Your task to perform on an android device: turn off airplane mode Image 0: 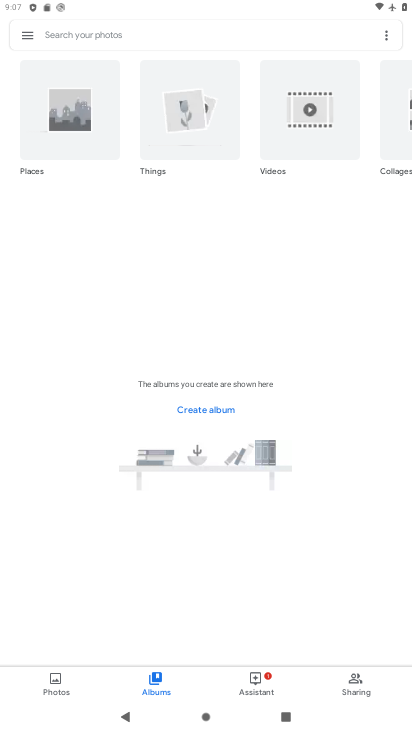
Step 0: press home button
Your task to perform on an android device: turn off airplane mode Image 1: 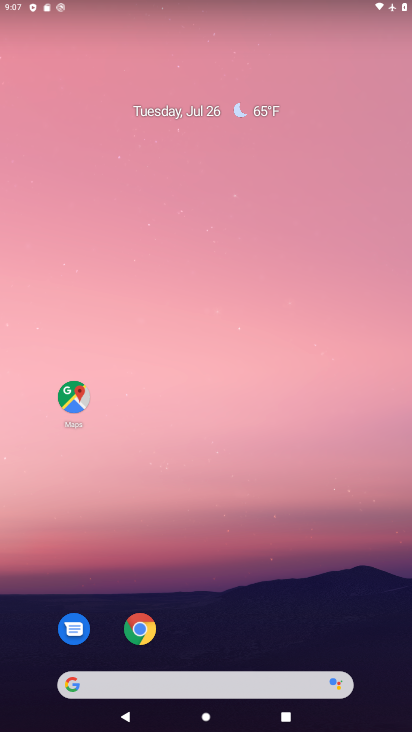
Step 1: drag from (302, 623) to (263, 41)
Your task to perform on an android device: turn off airplane mode Image 2: 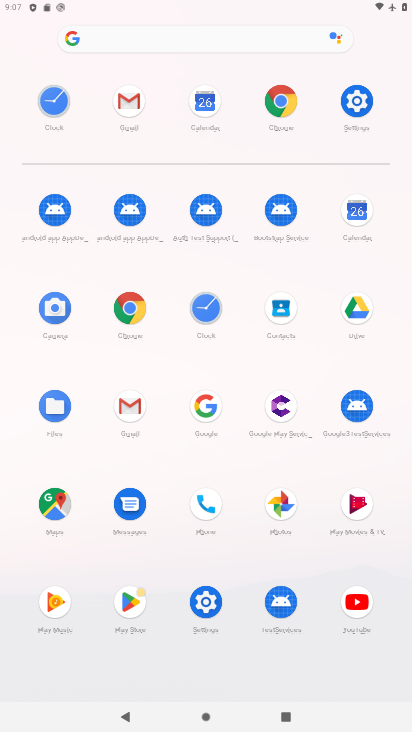
Step 2: click (367, 105)
Your task to perform on an android device: turn off airplane mode Image 3: 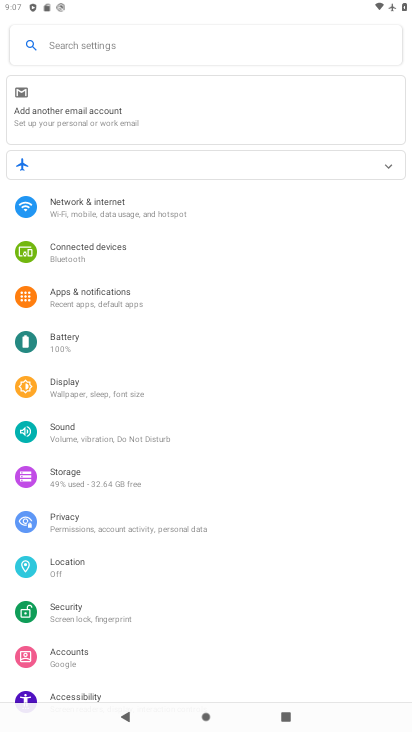
Step 3: click (93, 221)
Your task to perform on an android device: turn off airplane mode Image 4: 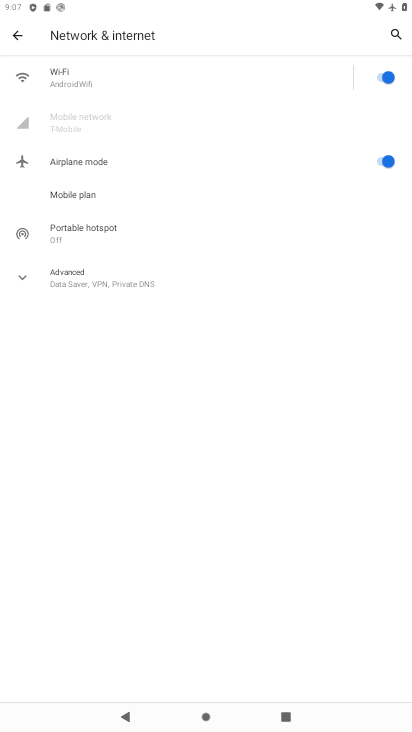
Step 4: click (333, 164)
Your task to perform on an android device: turn off airplane mode Image 5: 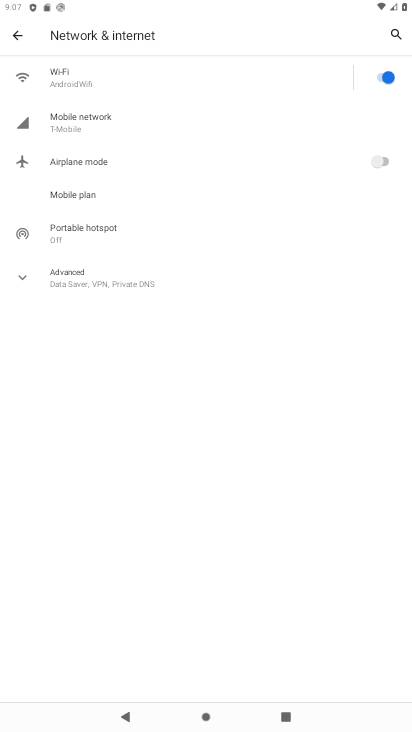
Step 5: task complete